Your task to perform on an android device: check google app version Image 0: 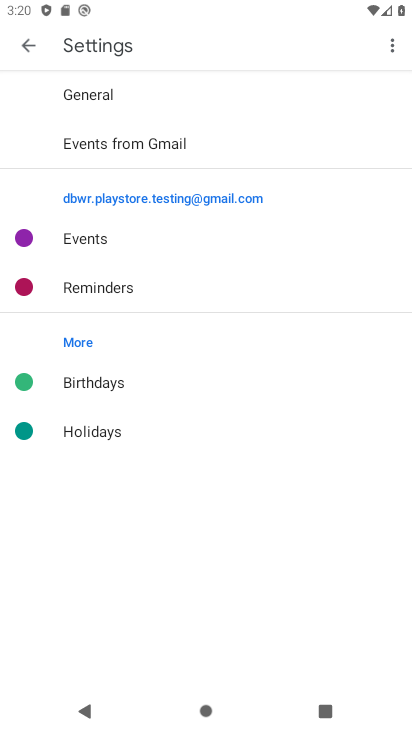
Step 0: press home button
Your task to perform on an android device: check google app version Image 1: 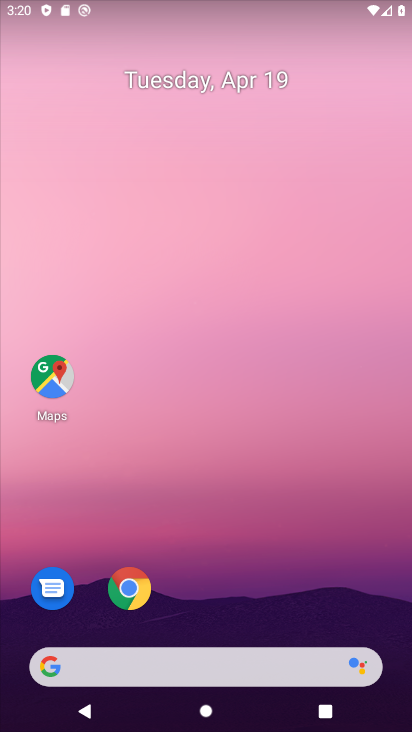
Step 1: drag from (190, 605) to (171, 70)
Your task to perform on an android device: check google app version Image 2: 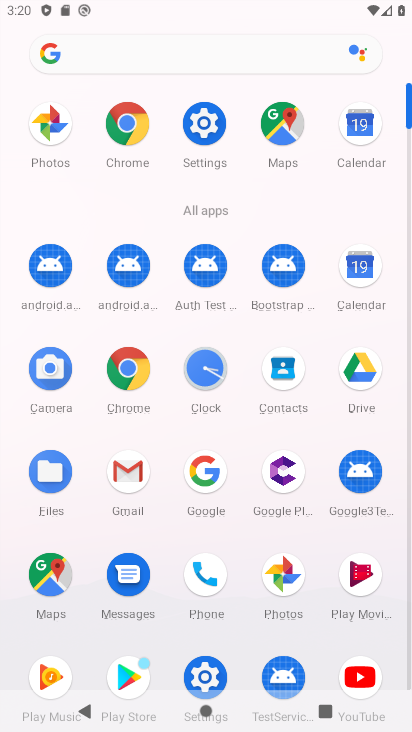
Step 2: click (207, 472)
Your task to perform on an android device: check google app version Image 3: 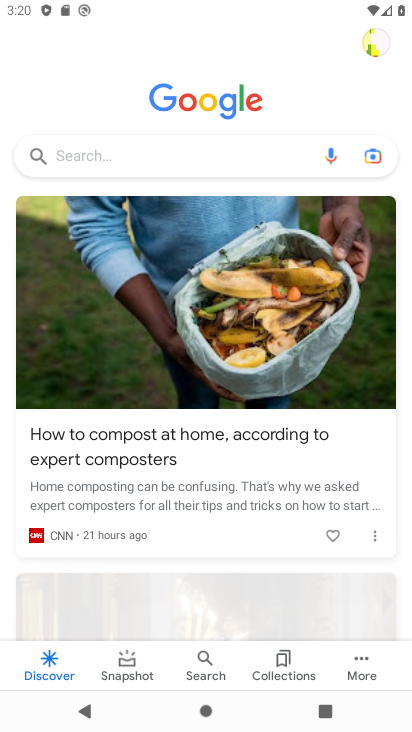
Step 3: click (360, 658)
Your task to perform on an android device: check google app version Image 4: 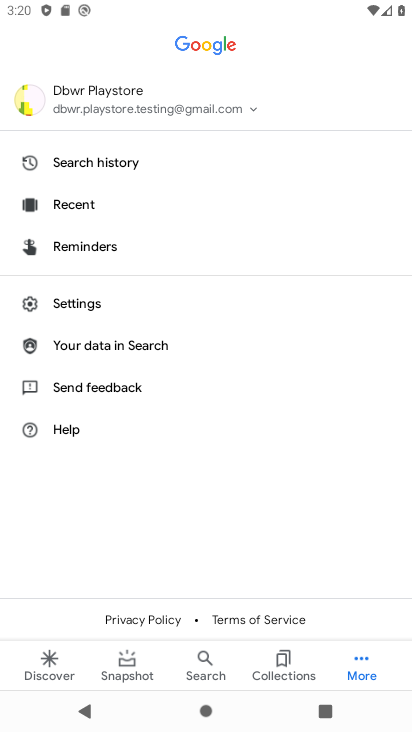
Step 4: click (82, 301)
Your task to perform on an android device: check google app version Image 5: 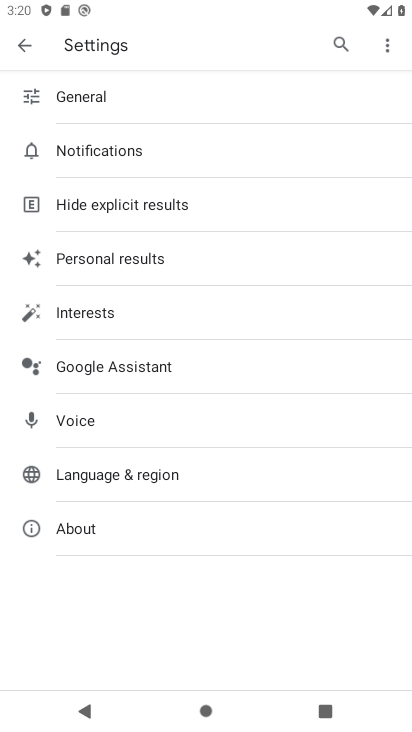
Step 5: click (96, 523)
Your task to perform on an android device: check google app version Image 6: 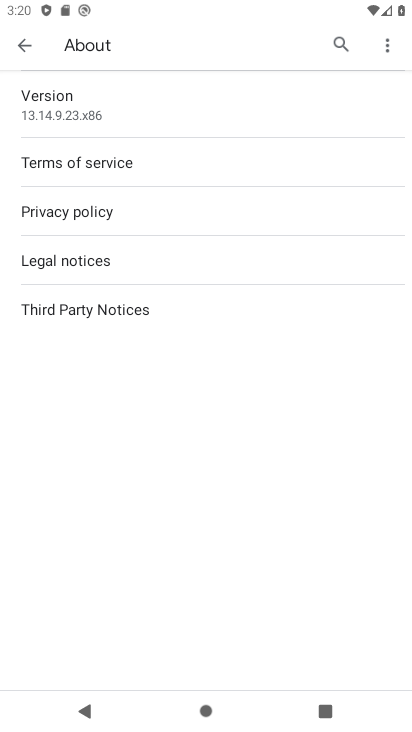
Step 6: click (75, 97)
Your task to perform on an android device: check google app version Image 7: 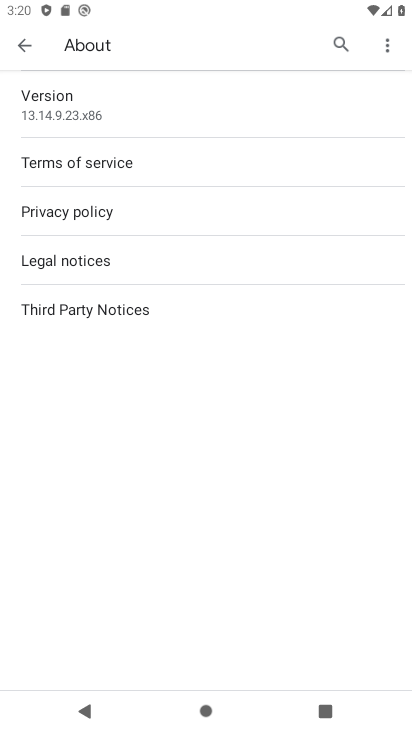
Step 7: task complete